Your task to perform on an android device: turn on sleep mode Image 0: 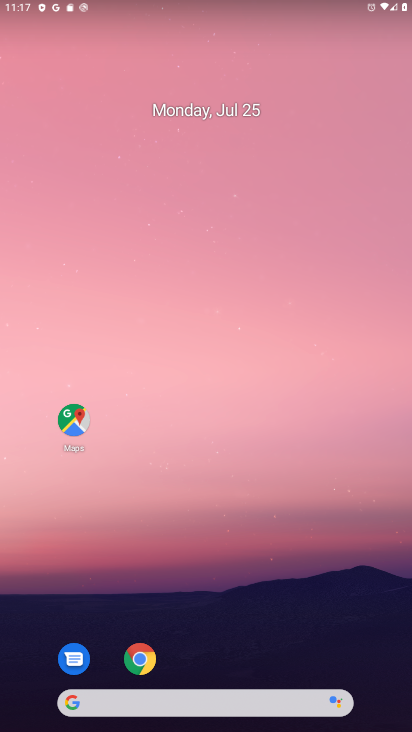
Step 0: drag from (249, 645) to (135, 91)
Your task to perform on an android device: turn on sleep mode Image 1: 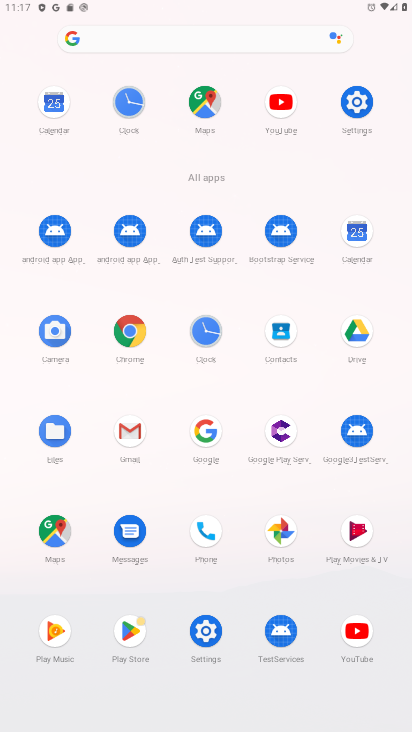
Step 1: click (201, 220)
Your task to perform on an android device: turn on sleep mode Image 2: 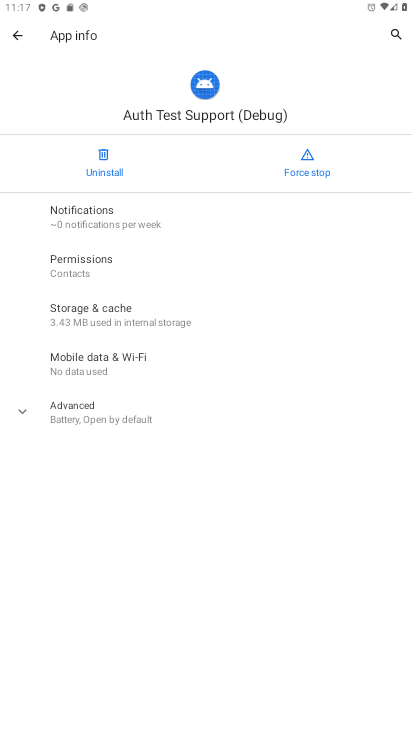
Step 2: press home button
Your task to perform on an android device: turn on sleep mode Image 3: 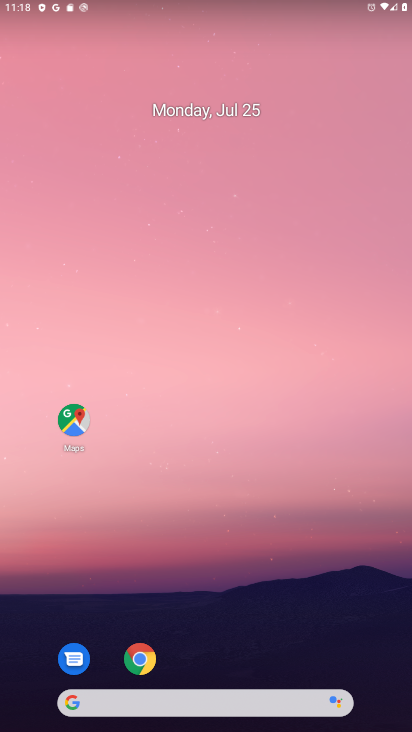
Step 3: drag from (260, 597) to (147, 41)
Your task to perform on an android device: turn on sleep mode Image 4: 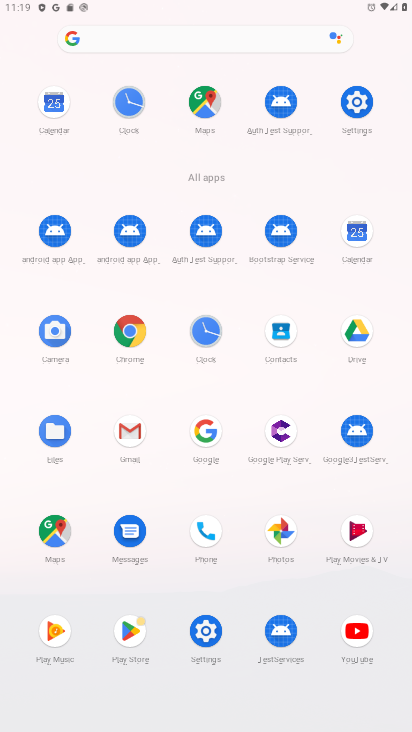
Step 4: click (358, 97)
Your task to perform on an android device: turn on sleep mode Image 5: 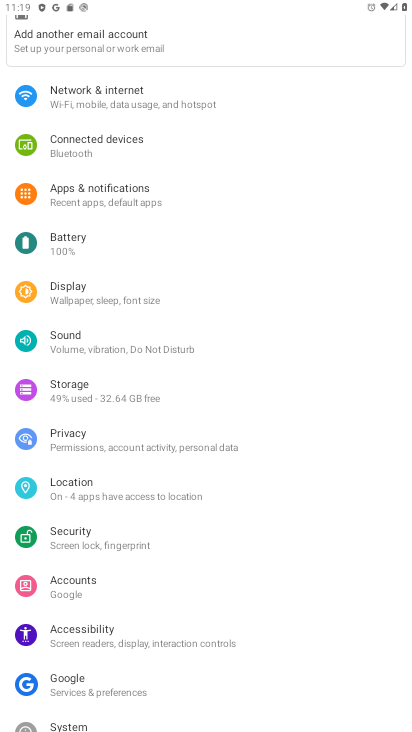
Step 5: click (69, 279)
Your task to perform on an android device: turn on sleep mode Image 6: 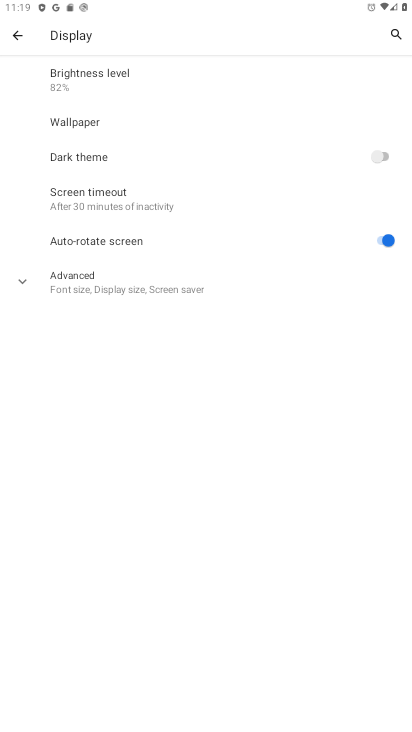
Step 6: task complete